Your task to perform on an android device: Open Yahoo.com Image 0: 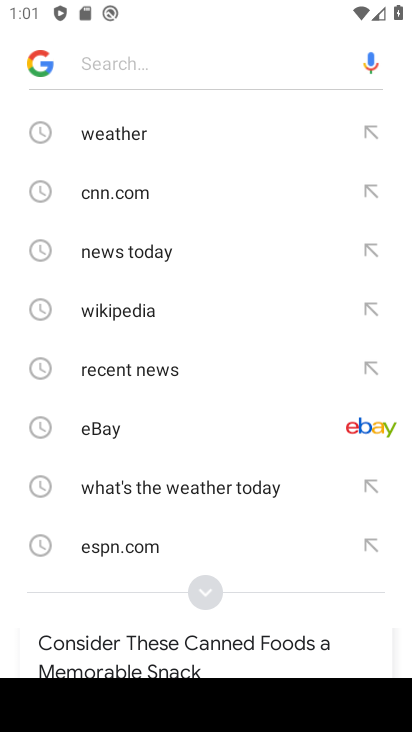
Step 0: press enter
Your task to perform on an android device: Open Yahoo.com Image 1: 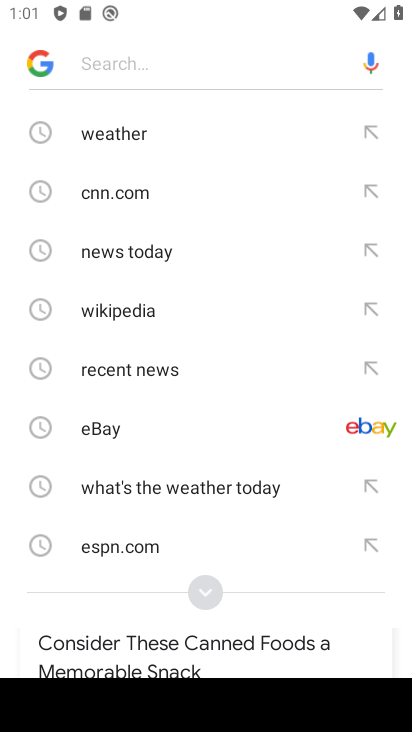
Step 1: type "yahoo.com"
Your task to perform on an android device: Open Yahoo.com Image 2: 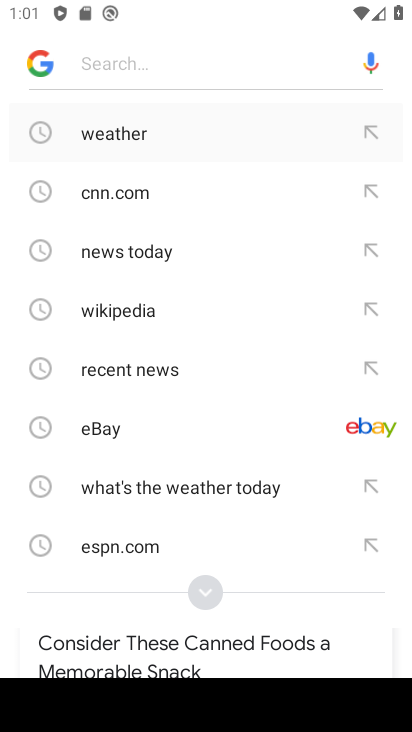
Step 2: click (117, 76)
Your task to perform on an android device: Open Yahoo.com Image 3: 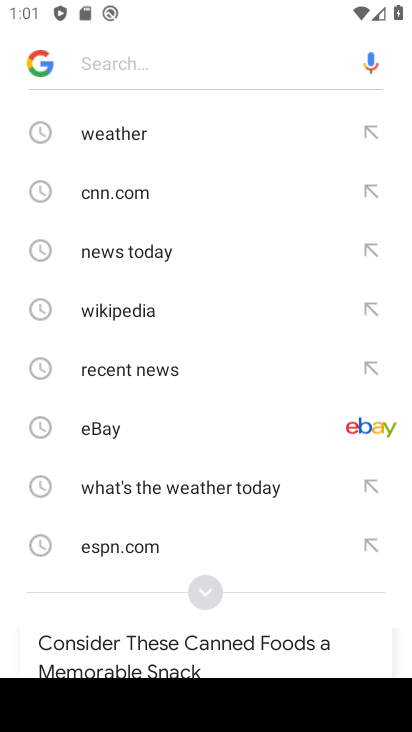
Step 3: click (151, 62)
Your task to perform on an android device: Open Yahoo.com Image 4: 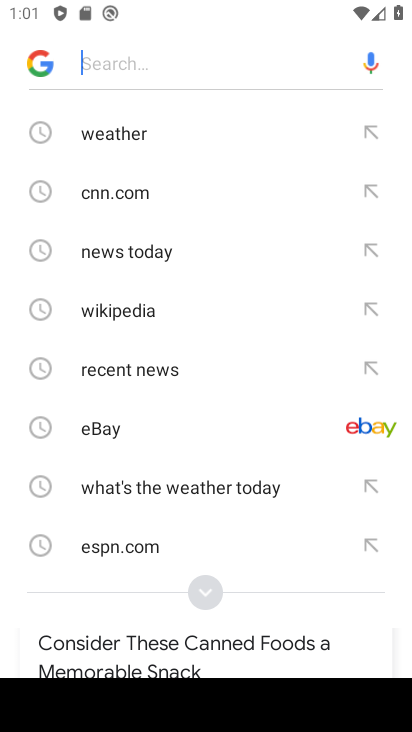
Step 4: type "yahoo.com"
Your task to perform on an android device: Open Yahoo.com Image 5: 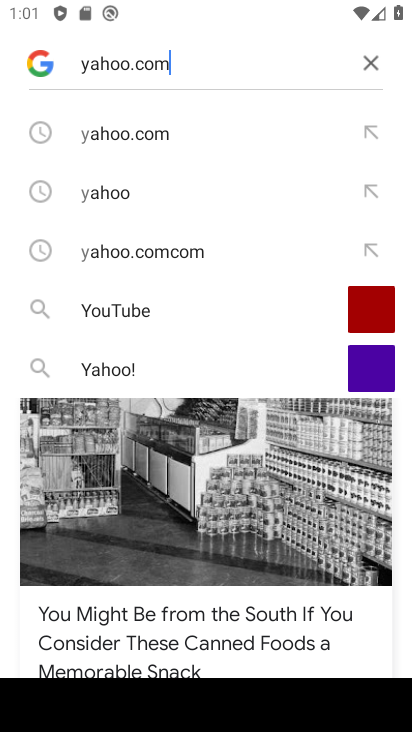
Step 5: press enter
Your task to perform on an android device: Open Yahoo.com Image 6: 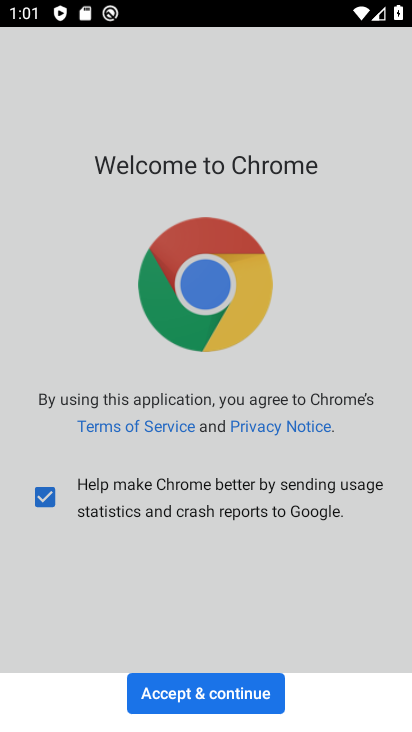
Step 6: click (224, 693)
Your task to perform on an android device: Open Yahoo.com Image 7: 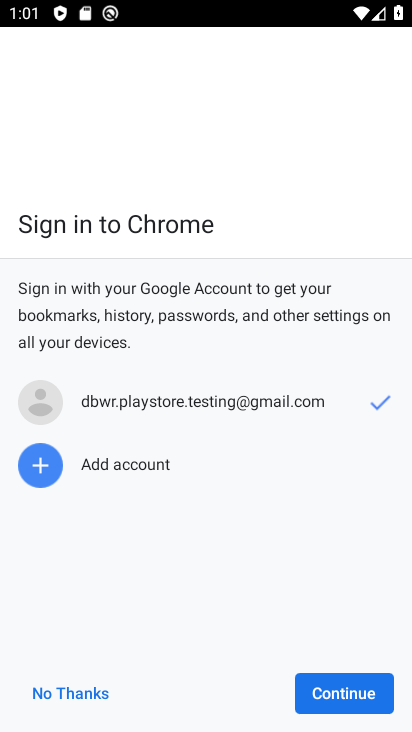
Step 7: click (346, 693)
Your task to perform on an android device: Open Yahoo.com Image 8: 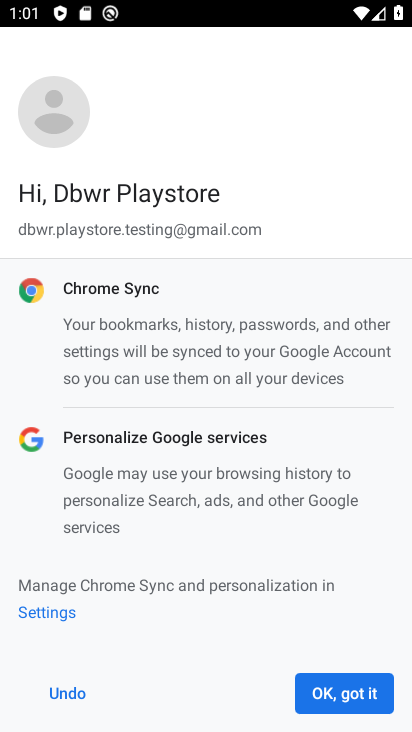
Step 8: click (346, 693)
Your task to perform on an android device: Open Yahoo.com Image 9: 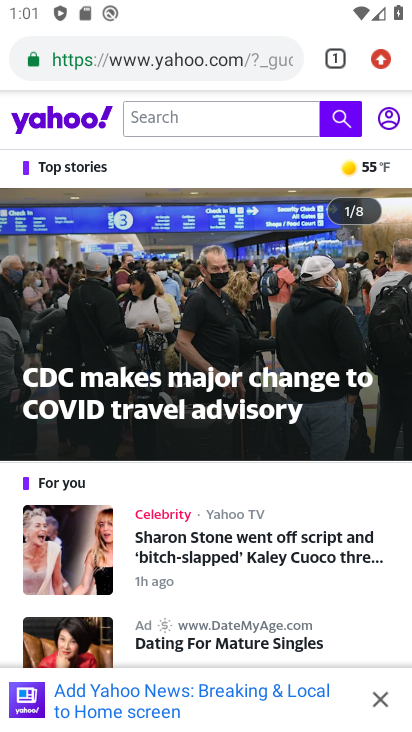
Step 9: task complete